Your task to perform on an android device: Show me the alarms in the clock app Image 0: 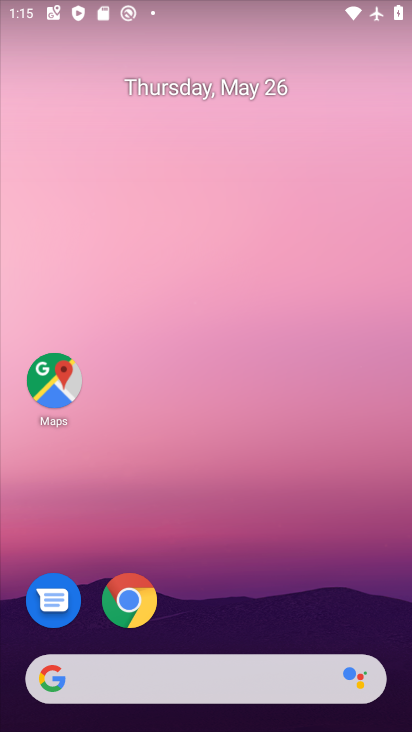
Step 0: drag from (255, 589) to (212, 2)
Your task to perform on an android device: Show me the alarms in the clock app Image 1: 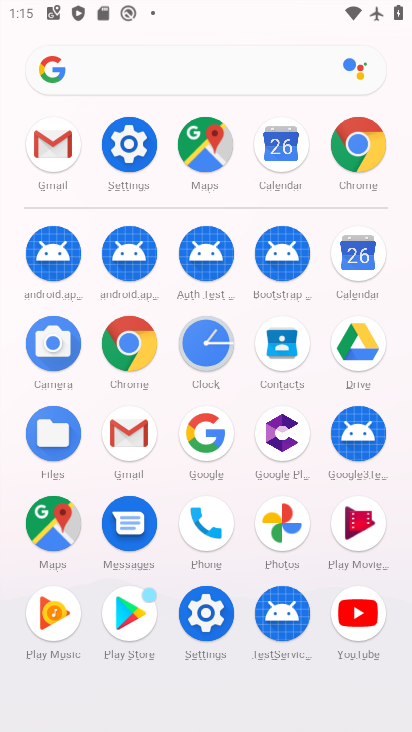
Step 1: click (212, 351)
Your task to perform on an android device: Show me the alarms in the clock app Image 2: 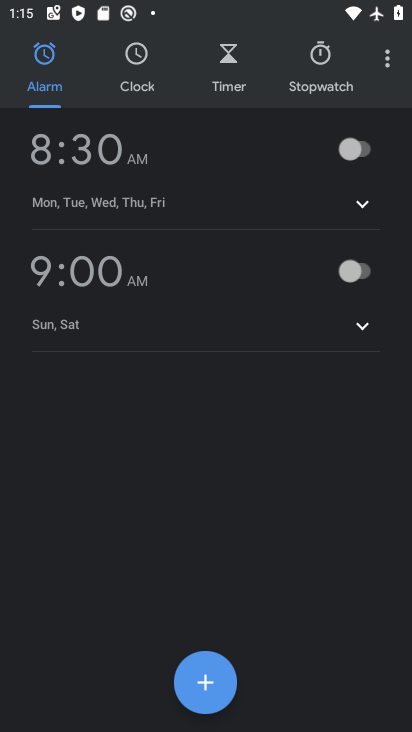
Step 2: task complete